Your task to perform on an android device: set an alarm Image 0: 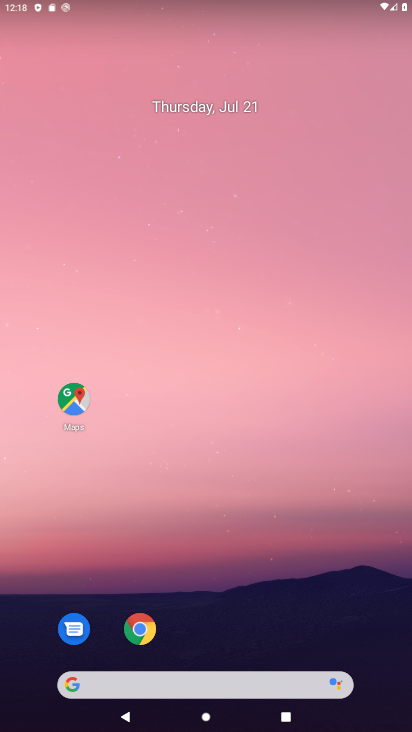
Step 0: drag from (327, 581) to (297, 79)
Your task to perform on an android device: set an alarm Image 1: 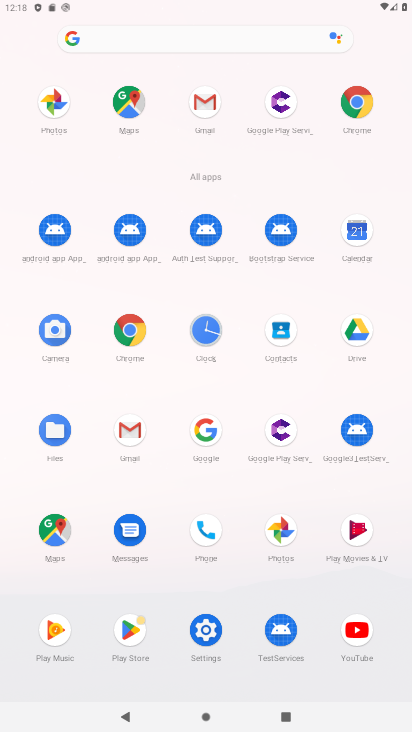
Step 1: click (207, 321)
Your task to perform on an android device: set an alarm Image 2: 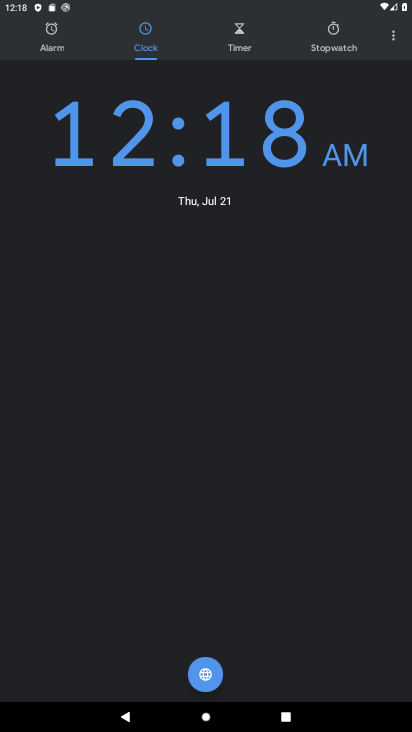
Step 2: click (61, 48)
Your task to perform on an android device: set an alarm Image 3: 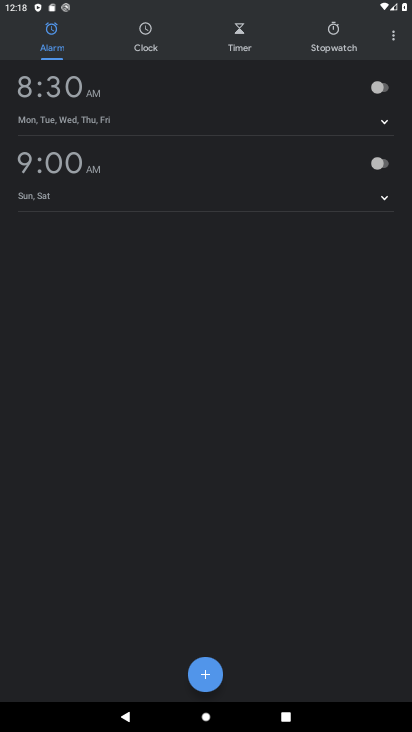
Step 3: task complete